Your task to perform on an android device: open chrome and create a bookmark for the current page Image 0: 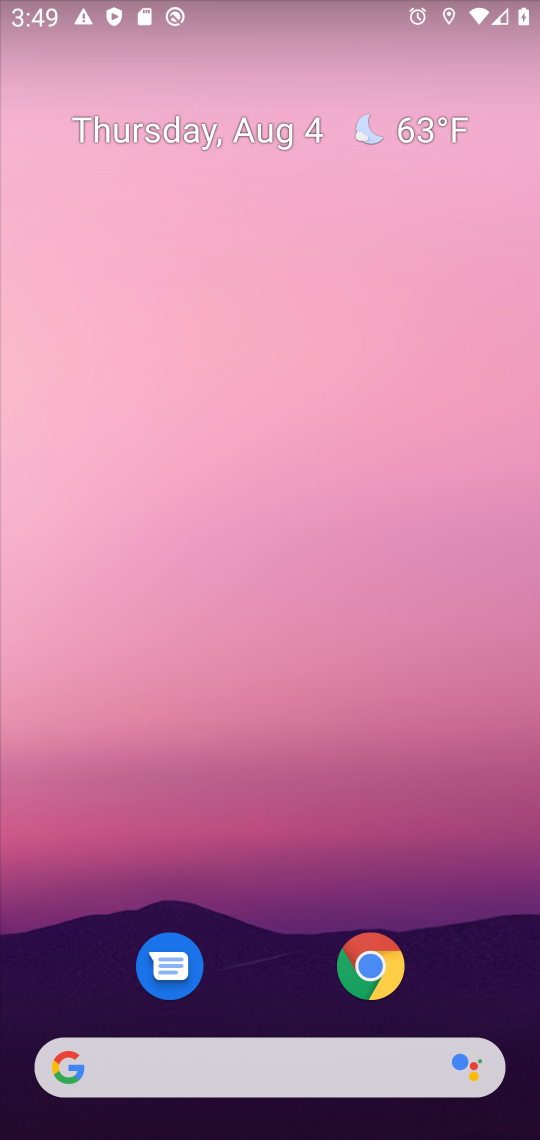
Step 0: press home button
Your task to perform on an android device: open chrome and create a bookmark for the current page Image 1: 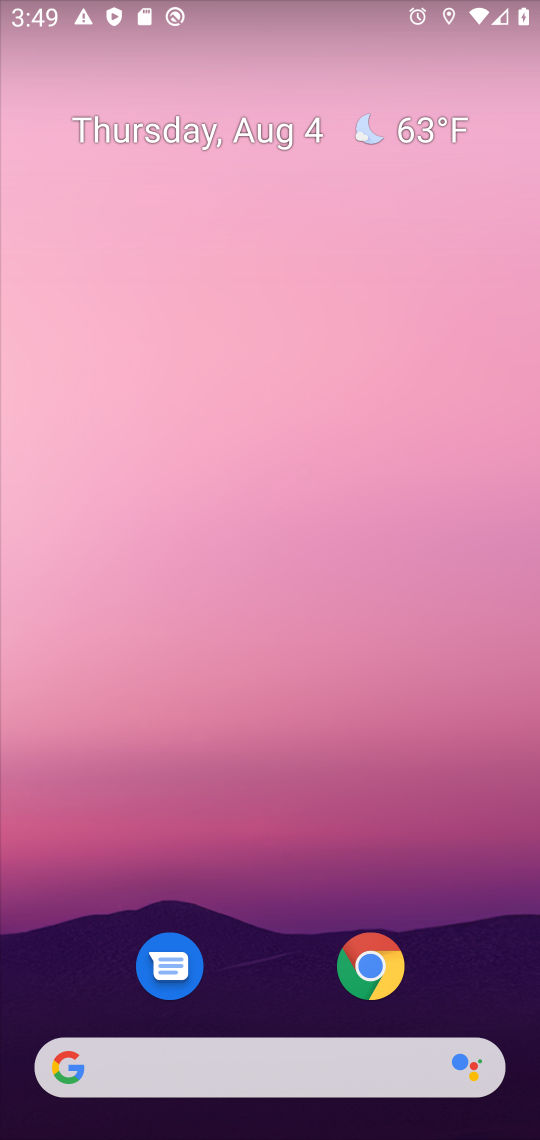
Step 1: drag from (284, 908) to (264, 96)
Your task to perform on an android device: open chrome and create a bookmark for the current page Image 2: 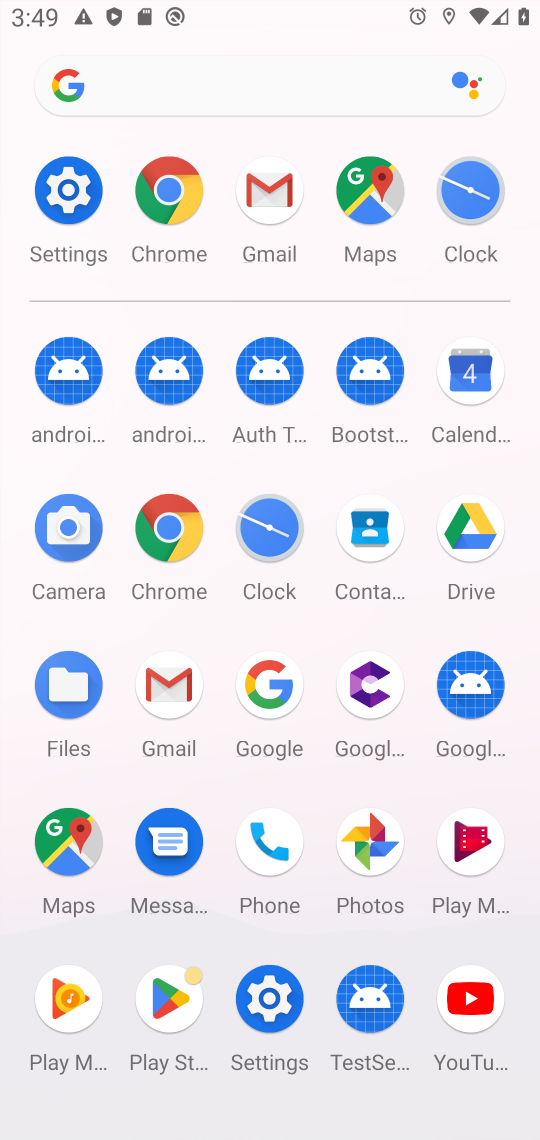
Step 2: click (177, 192)
Your task to perform on an android device: open chrome and create a bookmark for the current page Image 3: 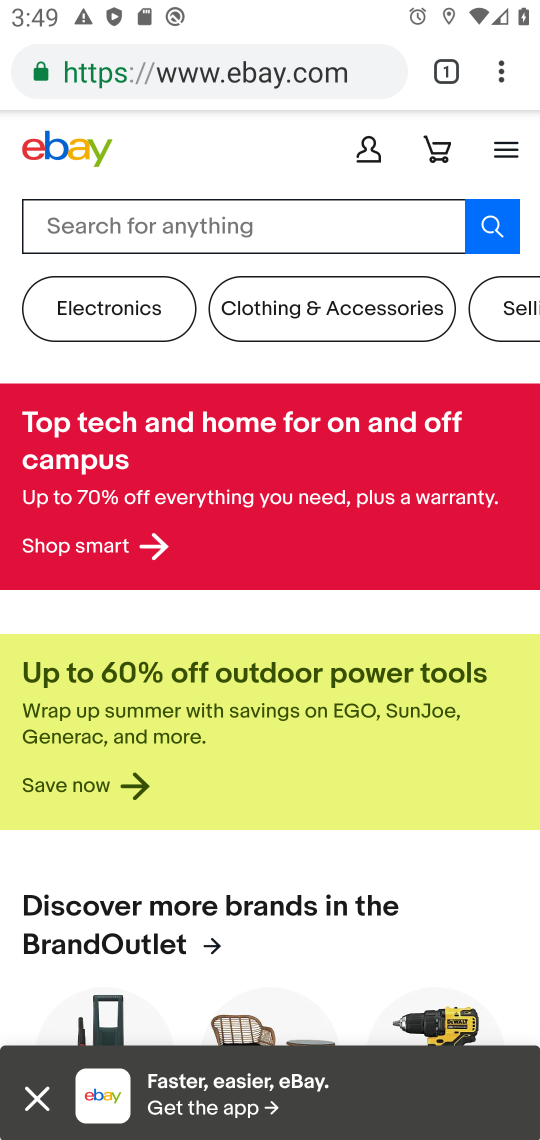
Step 3: click (451, 78)
Your task to perform on an android device: open chrome and create a bookmark for the current page Image 4: 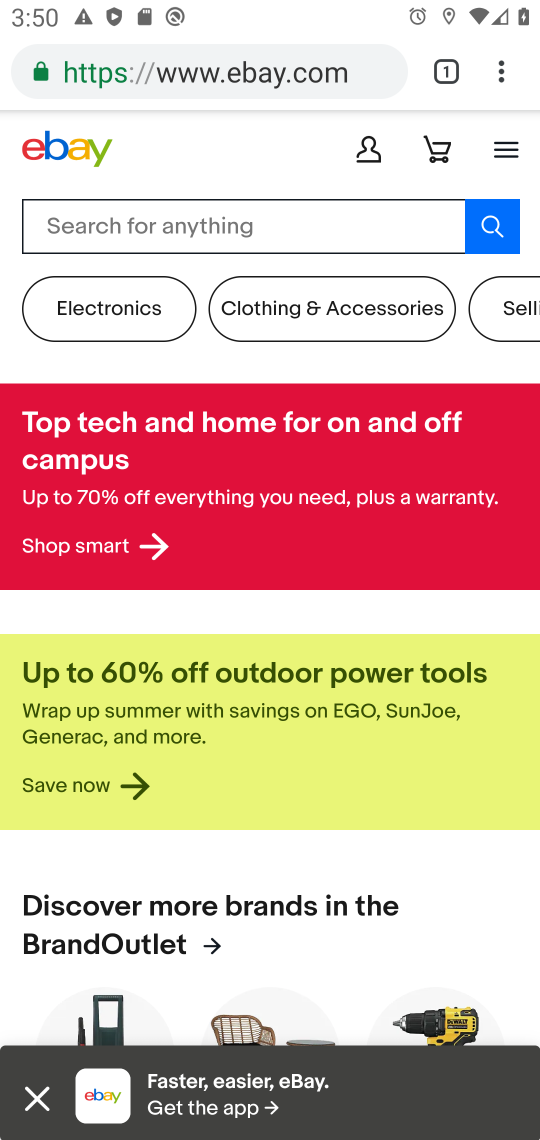
Step 4: task complete